Your task to perform on an android device: Is it going to rain tomorrow? Image 0: 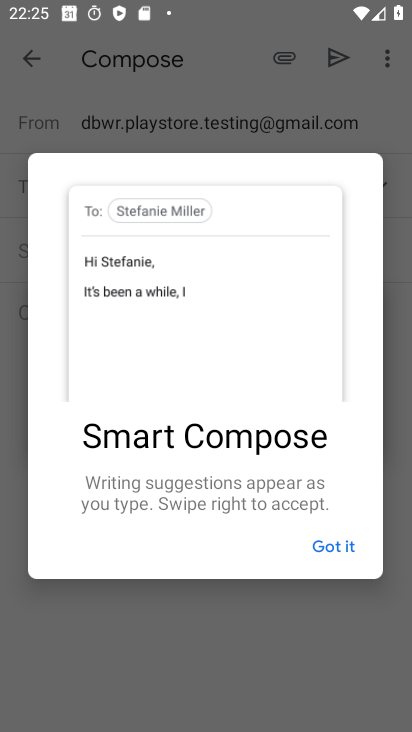
Step 0: press home button
Your task to perform on an android device: Is it going to rain tomorrow? Image 1: 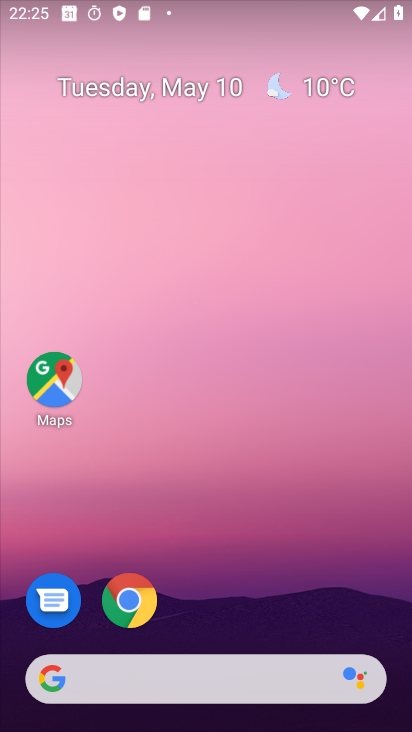
Step 1: drag from (272, 572) to (277, 77)
Your task to perform on an android device: Is it going to rain tomorrow? Image 2: 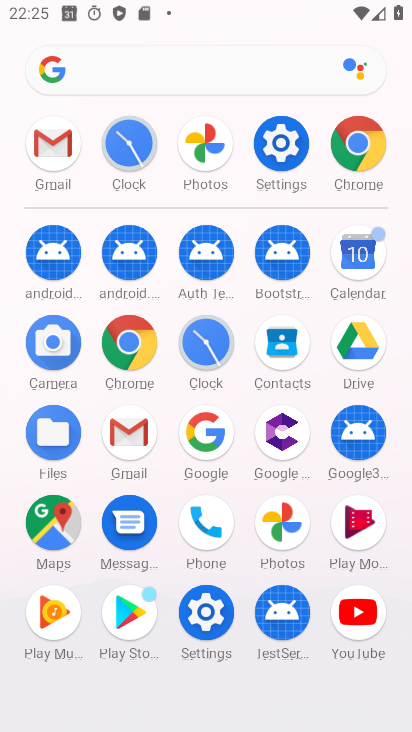
Step 2: press back button
Your task to perform on an android device: Is it going to rain tomorrow? Image 3: 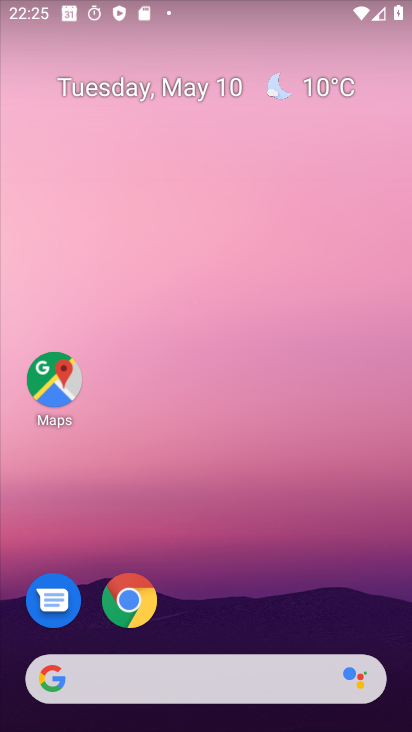
Step 3: click (312, 96)
Your task to perform on an android device: Is it going to rain tomorrow? Image 4: 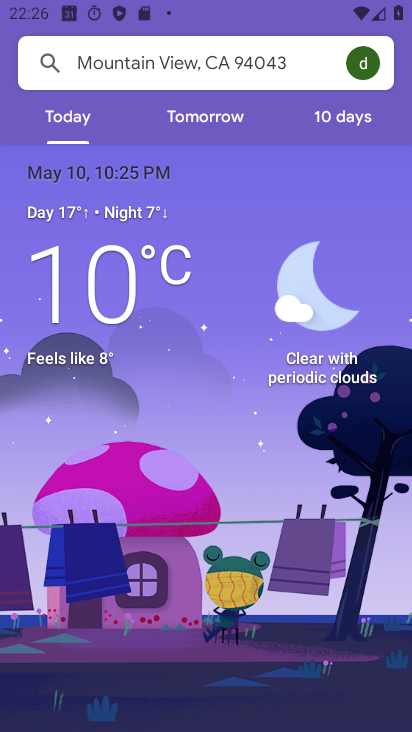
Step 4: click (188, 113)
Your task to perform on an android device: Is it going to rain tomorrow? Image 5: 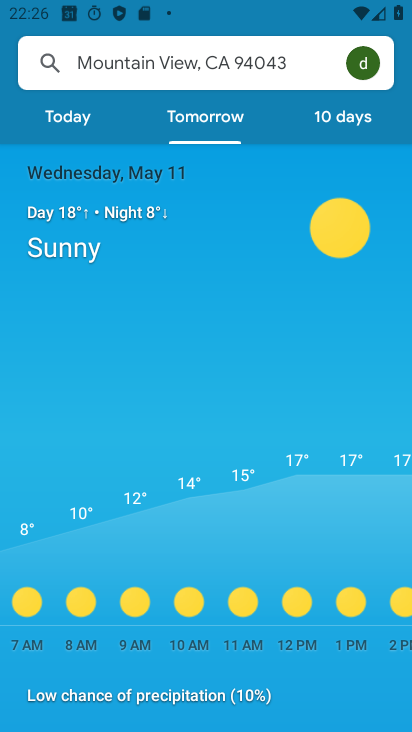
Step 5: task complete